Your task to perform on an android device: Add usb-c to usb-a to the cart on amazon.com Image 0: 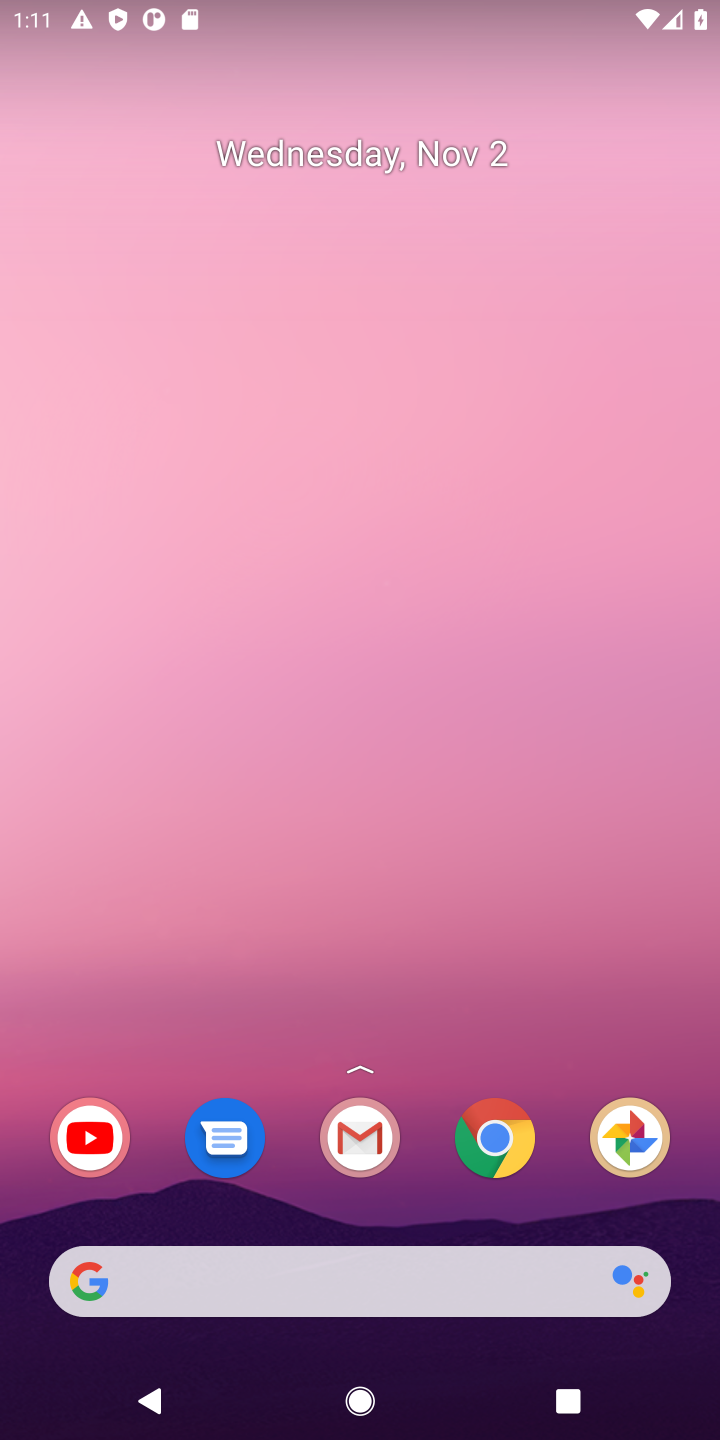
Step 0: press home button
Your task to perform on an android device: Add usb-c to usb-a to the cart on amazon.com Image 1: 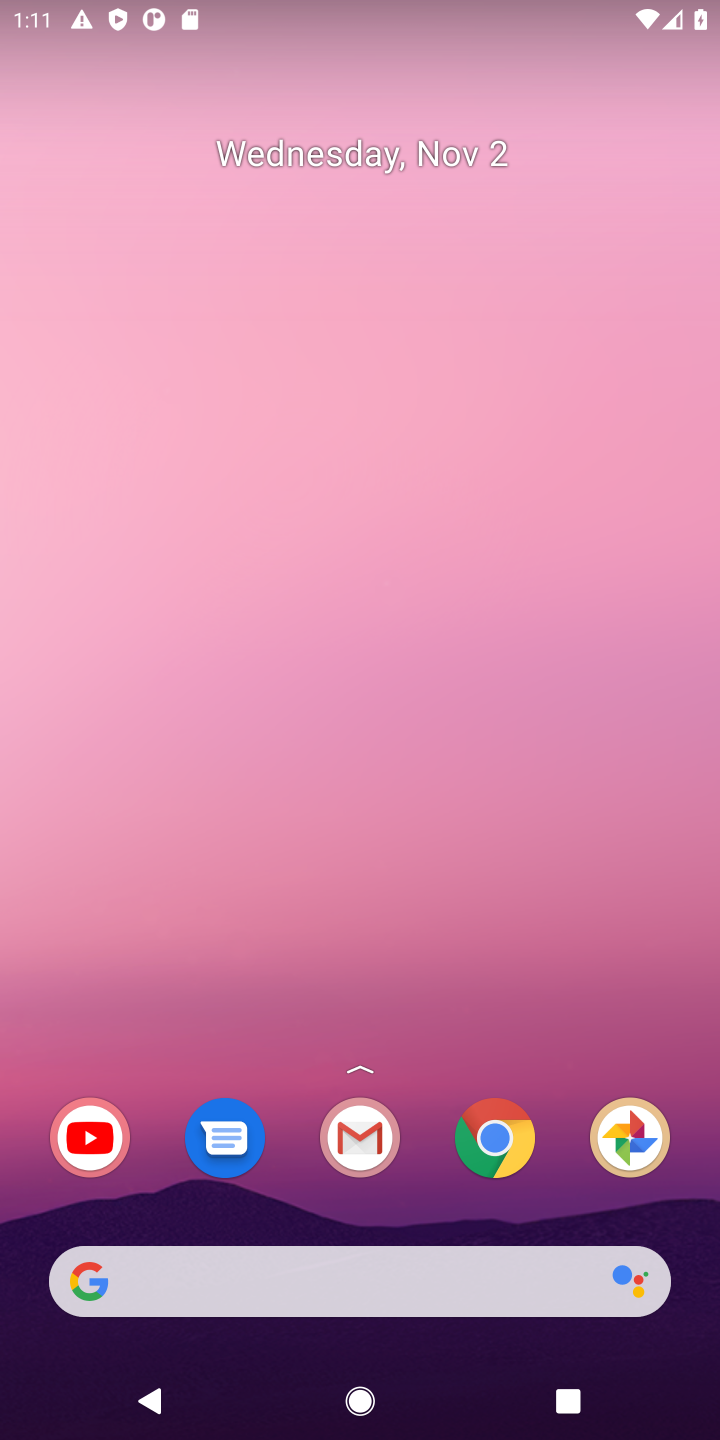
Step 1: click (180, 1261)
Your task to perform on an android device: Add usb-c to usb-a to the cart on amazon.com Image 2: 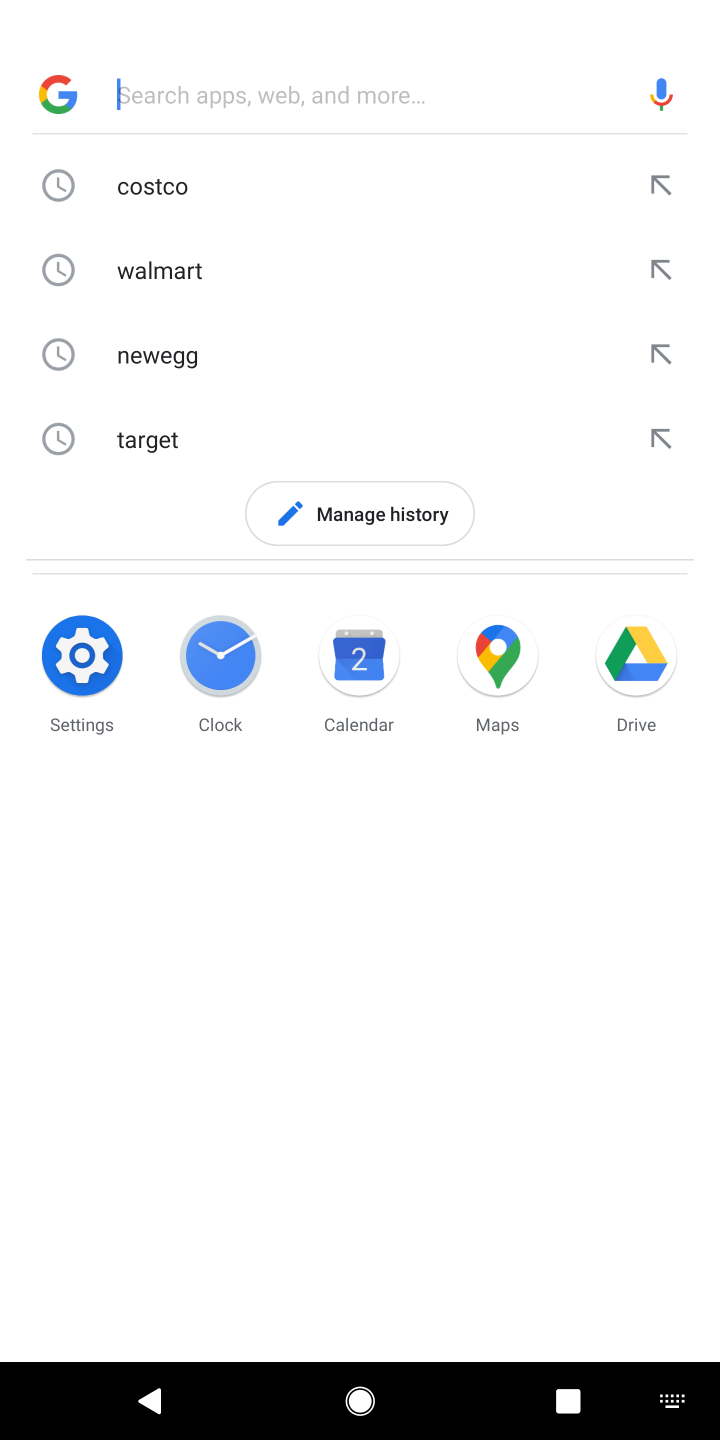
Step 2: press enter
Your task to perform on an android device: Add usb-c to usb-a to the cart on amazon.com Image 3: 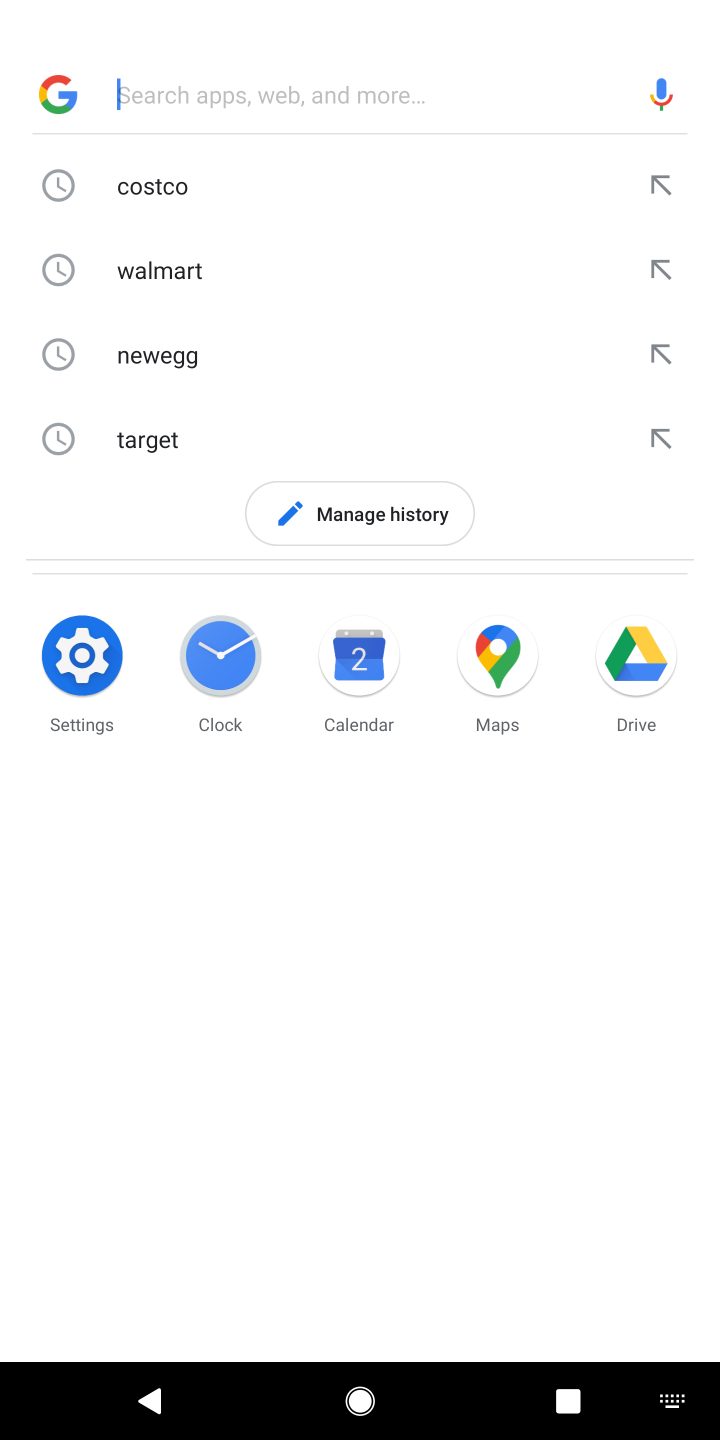
Step 3: type " amazon.com"
Your task to perform on an android device: Add usb-c to usb-a to the cart on amazon.com Image 4: 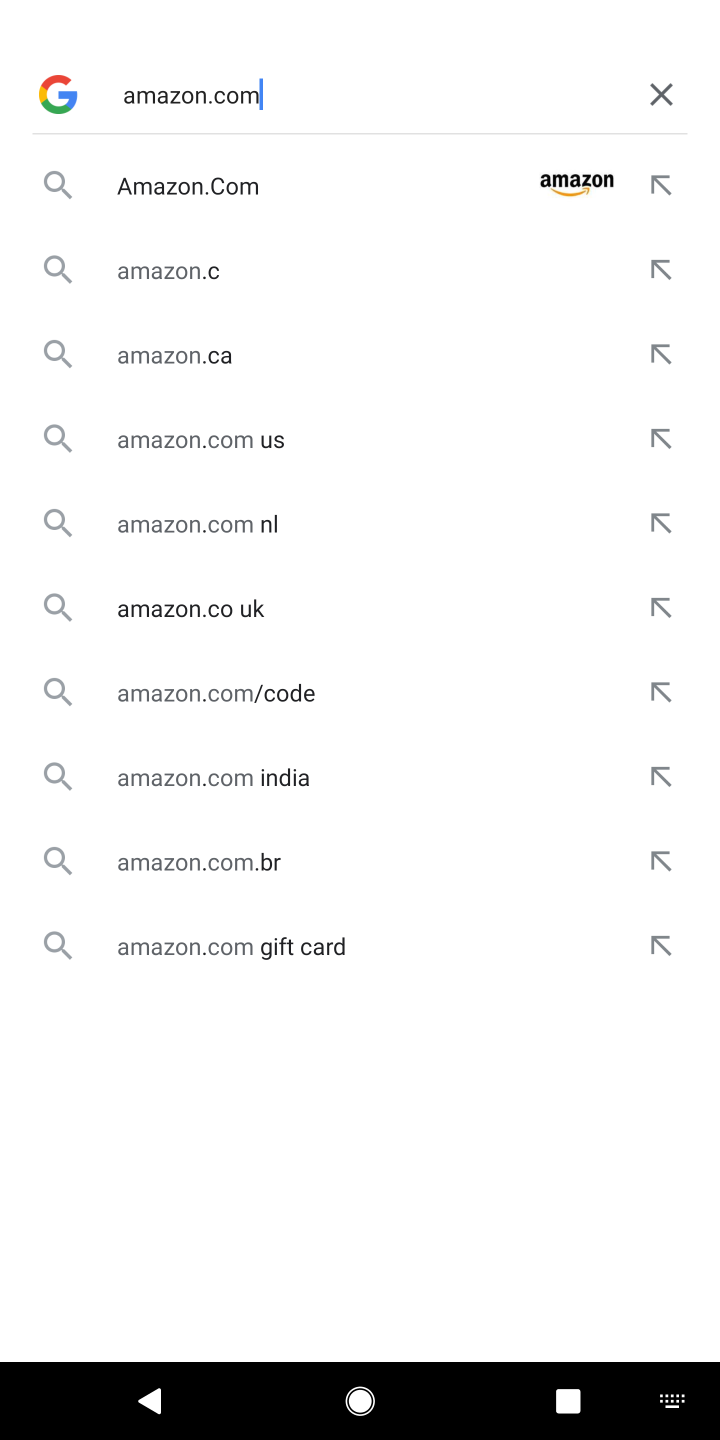
Step 4: press enter
Your task to perform on an android device: Add usb-c to usb-a to the cart on amazon.com Image 5: 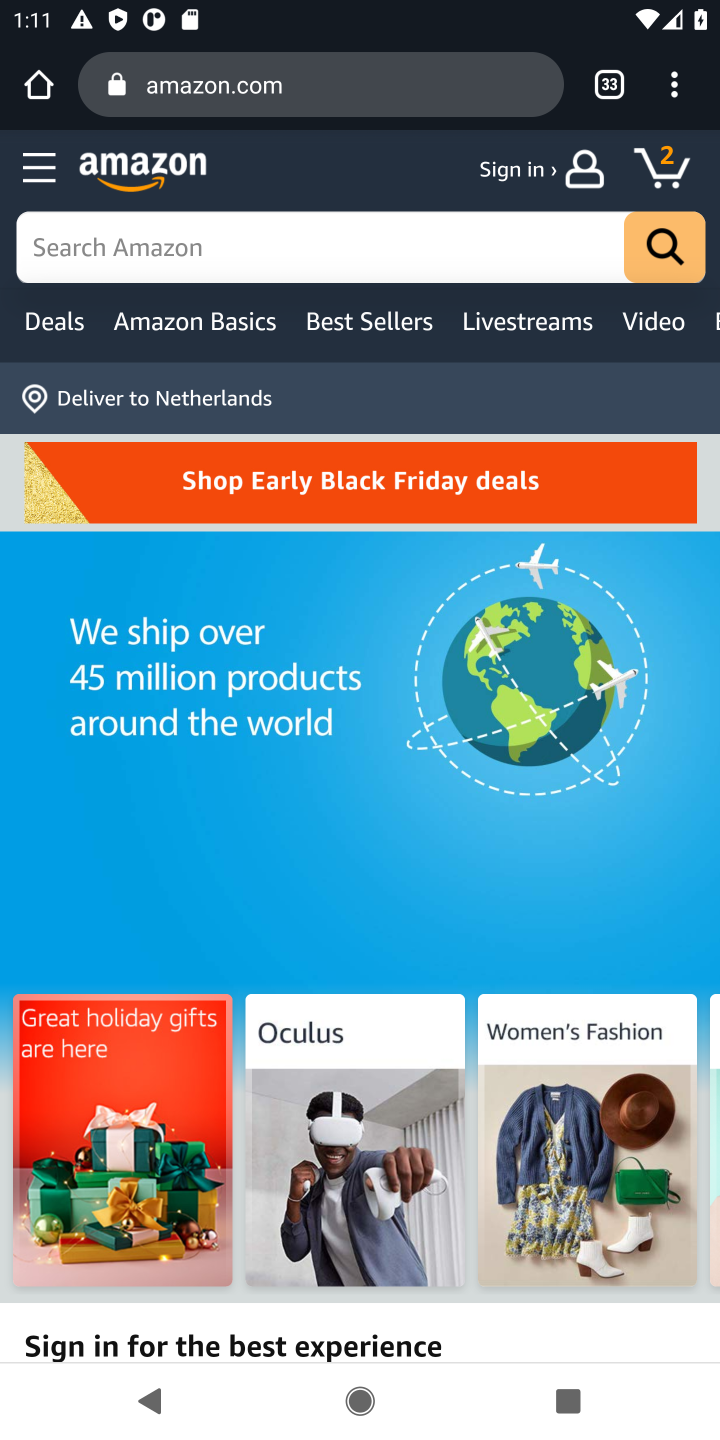
Step 5: click (136, 236)
Your task to perform on an android device: Add usb-c to usb-a to the cart on amazon.com Image 6: 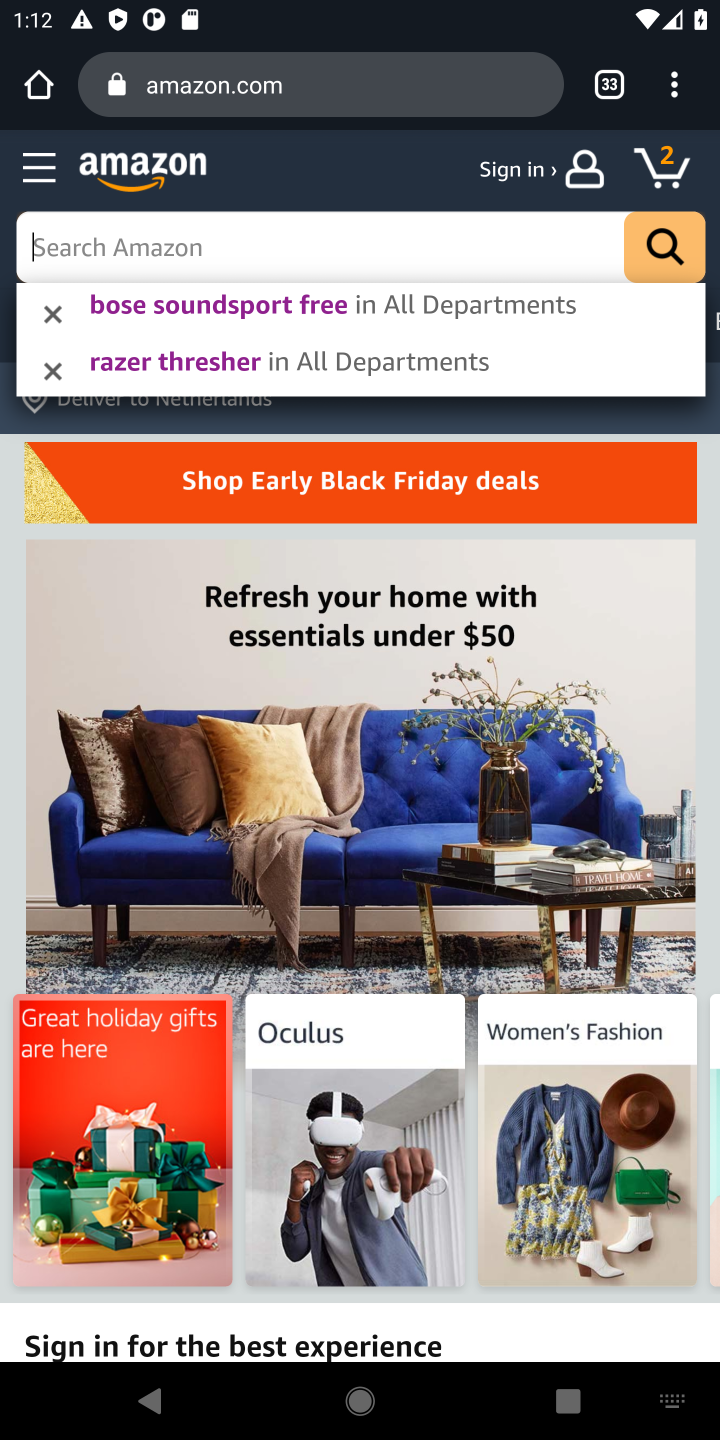
Step 6: press enter
Your task to perform on an android device: Add usb-c to usb-a to the cart on amazon.com Image 7: 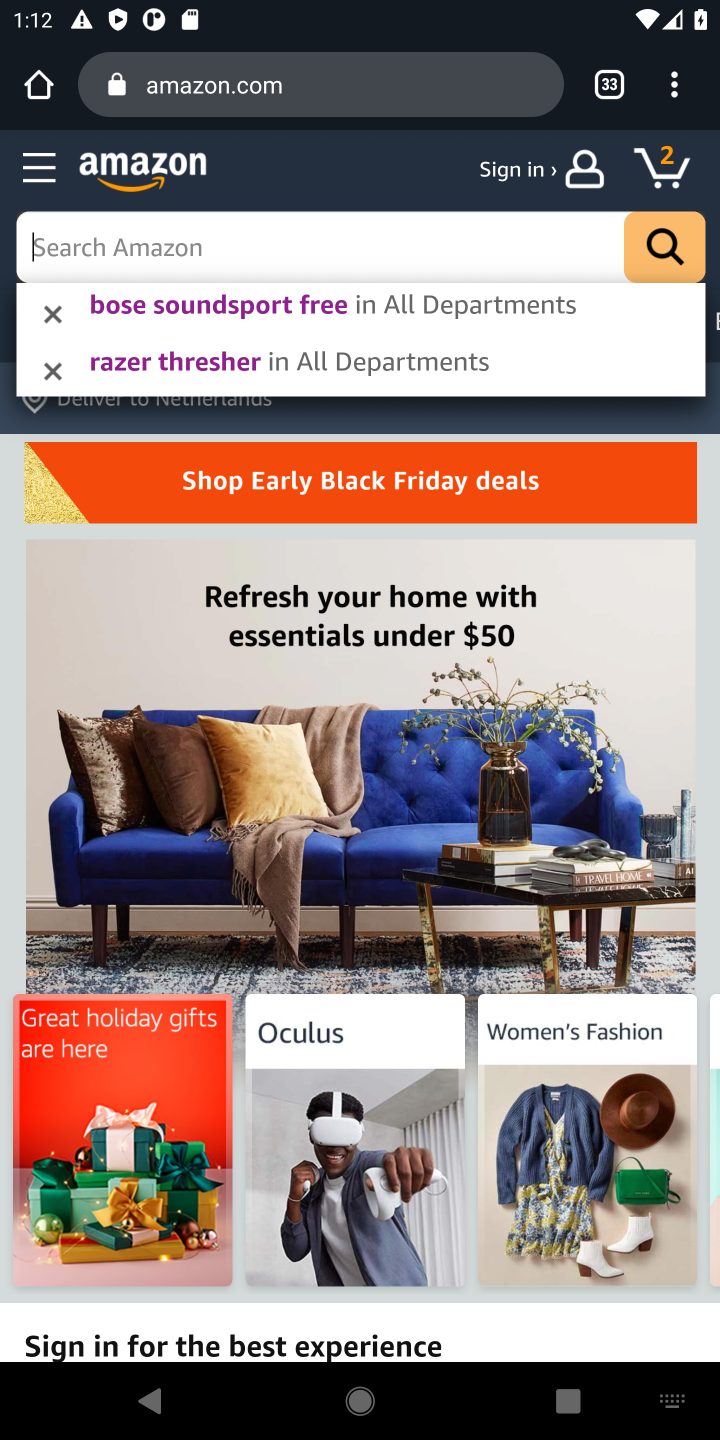
Step 7: type "usb-c to usb-a"
Your task to perform on an android device: Add usb-c to usb-a to the cart on amazon.com Image 8: 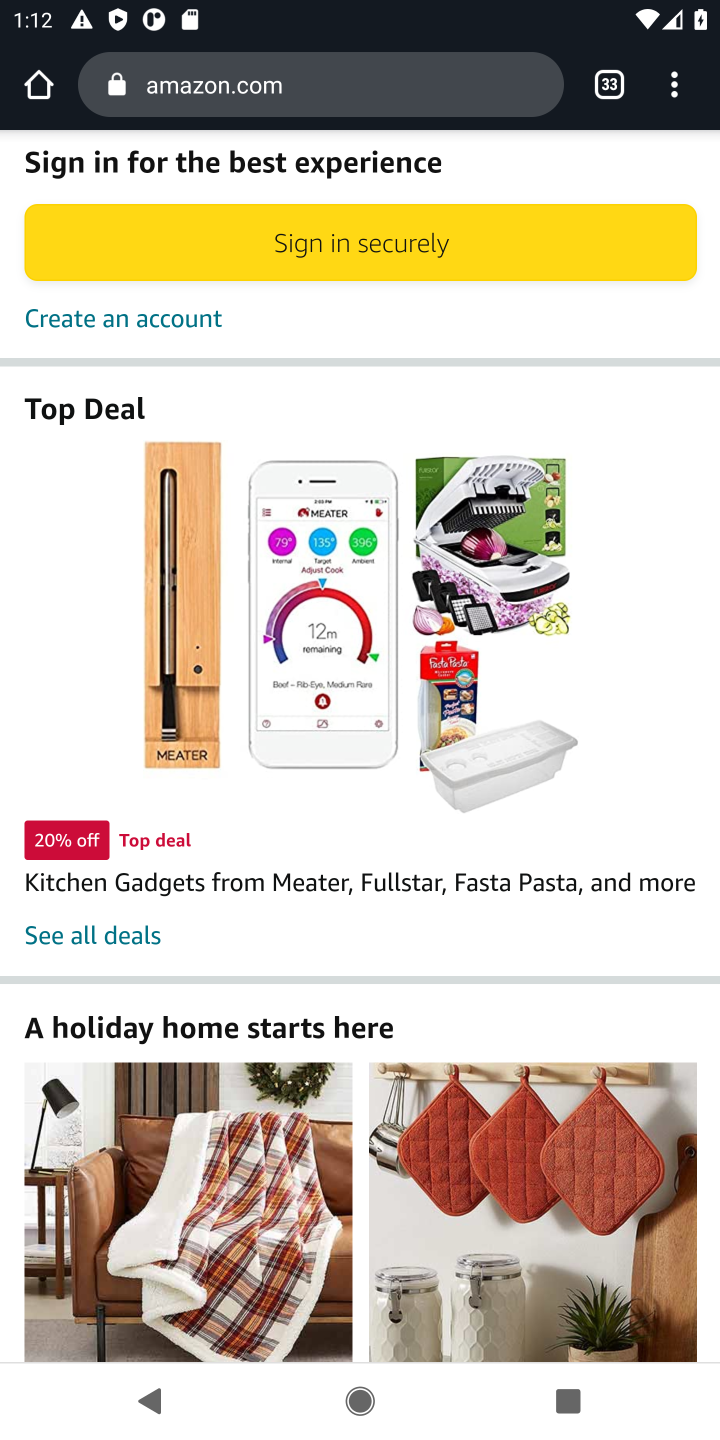
Step 8: drag from (515, 445) to (521, 964)
Your task to perform on an android device: Add usb-c to usb-a to the cart on amazon.com Image 9: 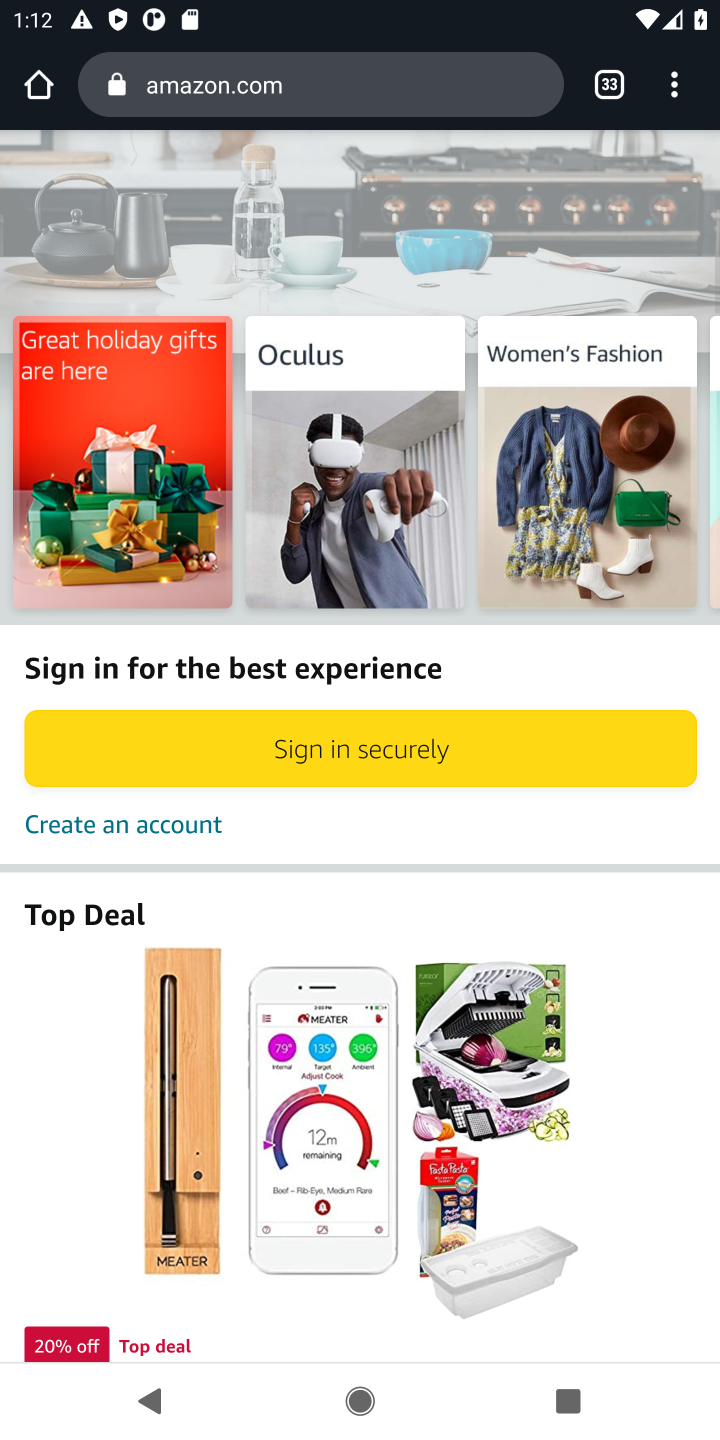
Step 9: drag from (528, 481) to (517, 1050)
Your task to perform on an android device: Add usb-c to usb-a to the cart on amazon.com Image 10: 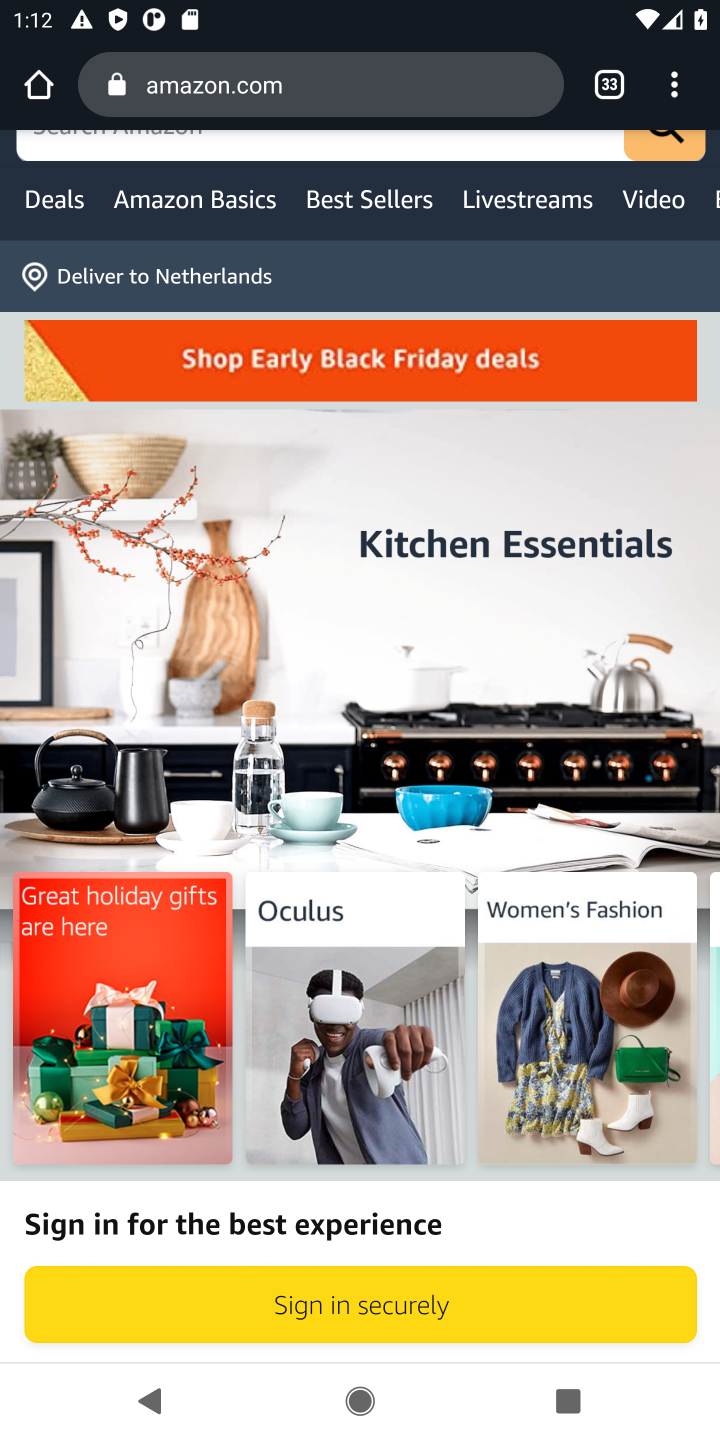
Step 10: drag from (511, 440) to (493, 998)
Your task to perform on an android device: Add usb-c to usb-a to the cart on amazon.com Image 11: 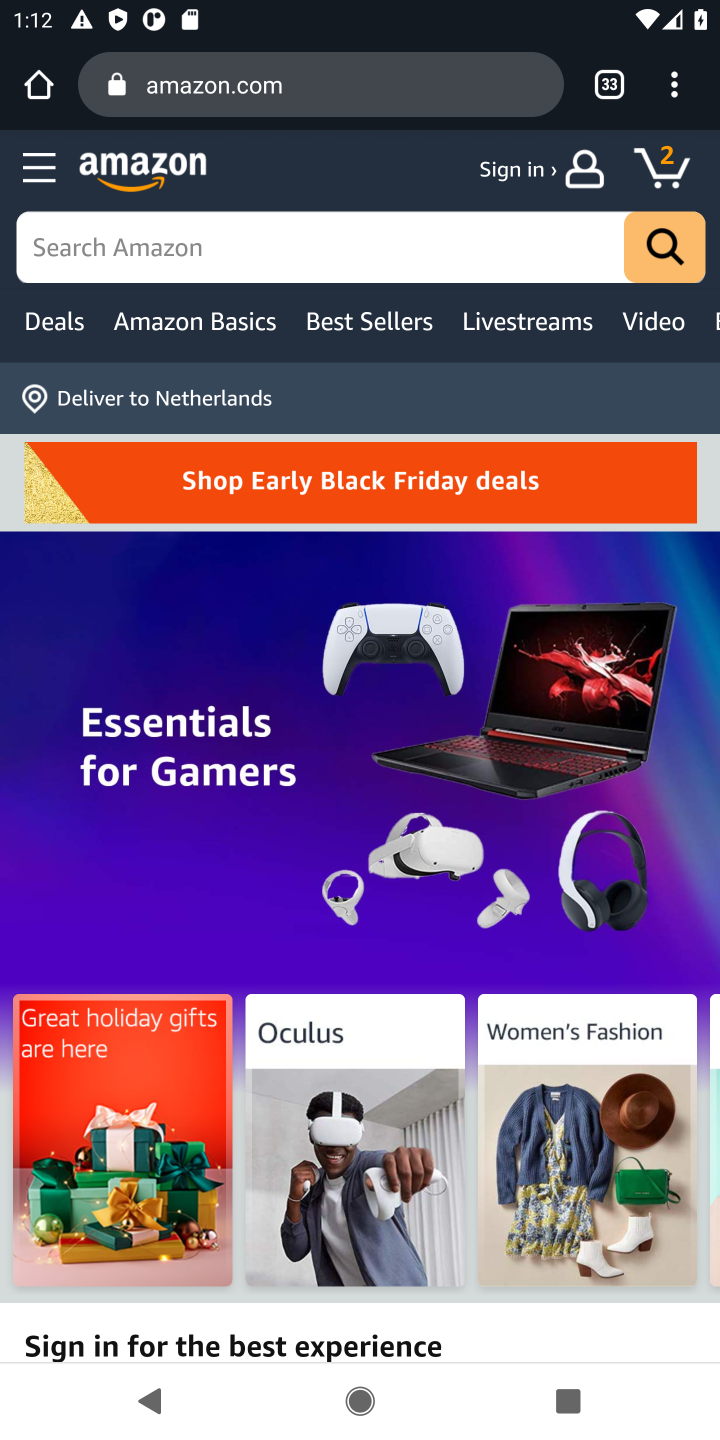
Step 11: click (113, 247)
Your task to perform on an android device: Add usb-c to usb-a to the cart on amazon.com Image 12: 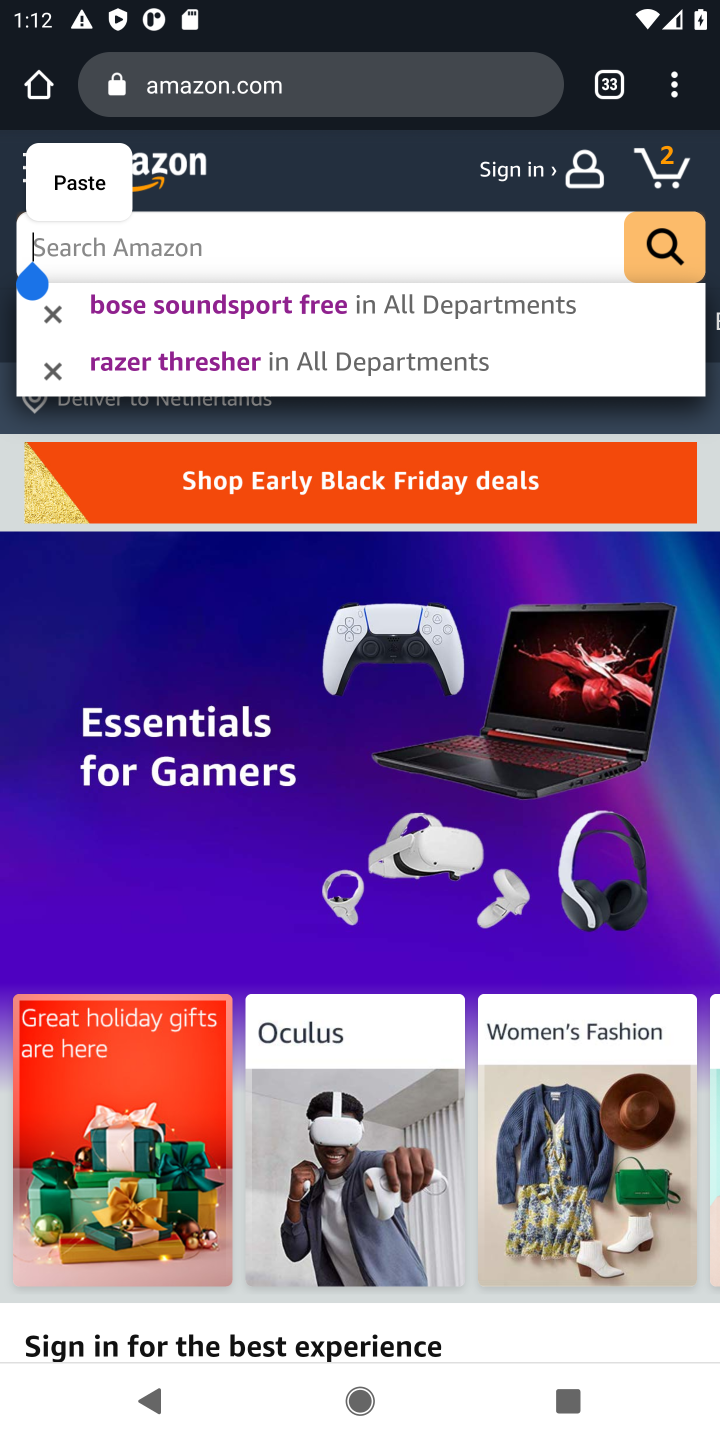
Step 12: type "usb-c to usb-a"
Your task to perform on an android device: Add usb-c to usb-a to the cart on amazon.com Image 13: 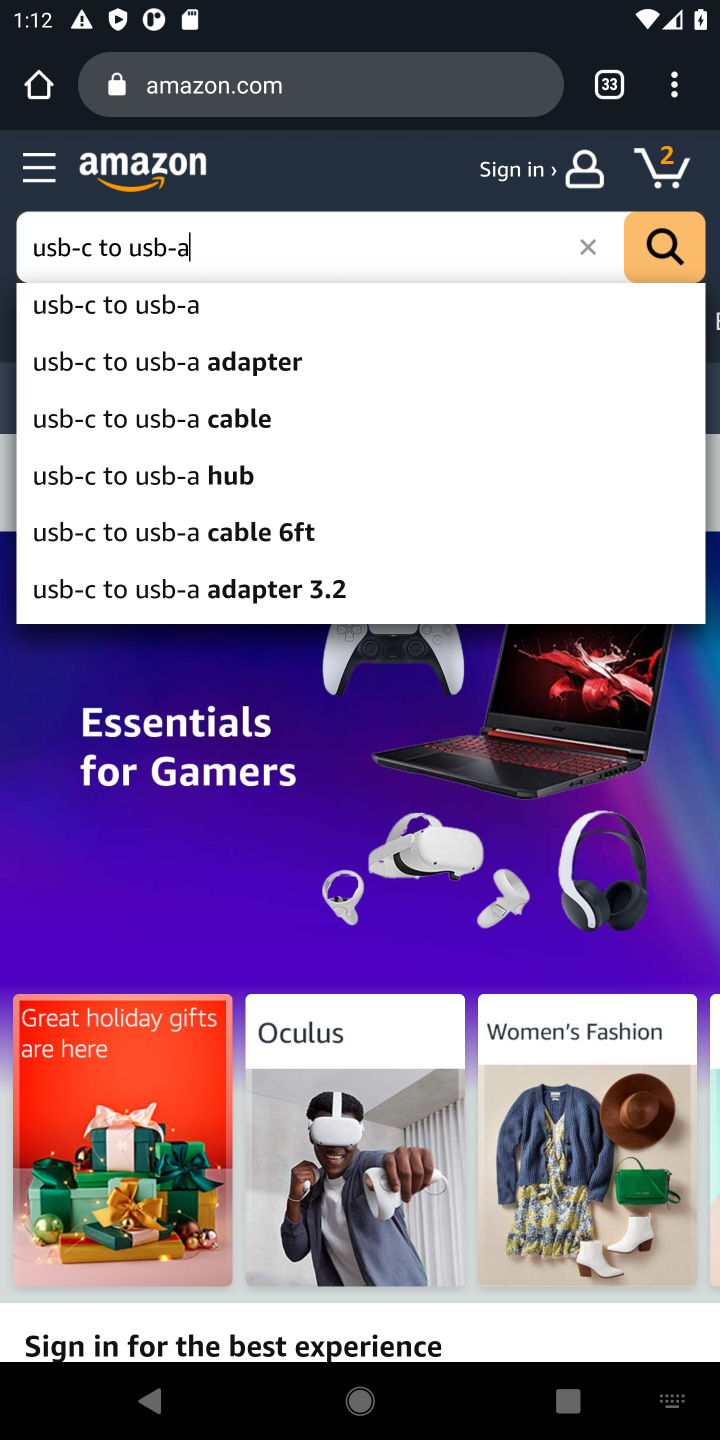
Step 13: click (667, 237)
Your task to perform on an android device: Add usb-c to usb-a to the cart on amazon.com Image 14: 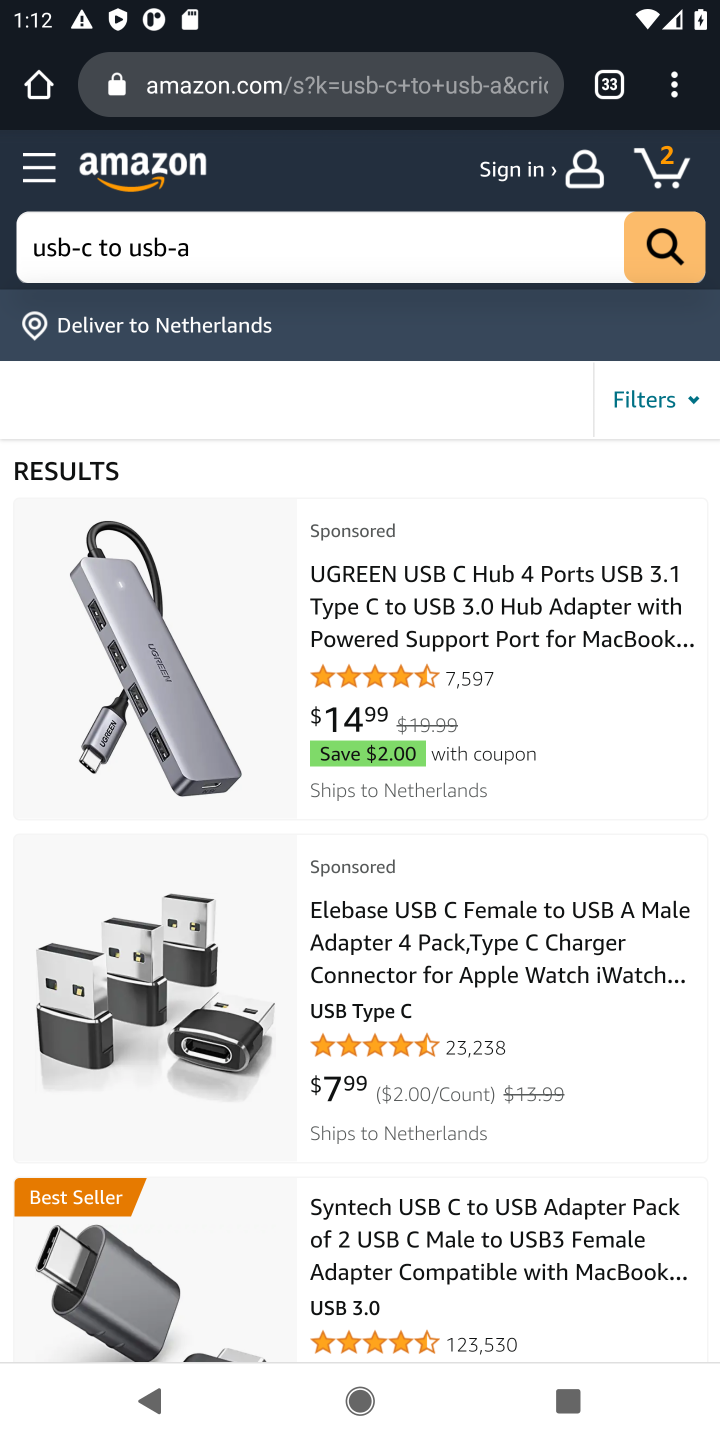
Step 14: drag from (407, 1175) to (414, 982)
Your task to perform on an android device: Add usb-c to usb-a to the cart on amazon.com Image 15: 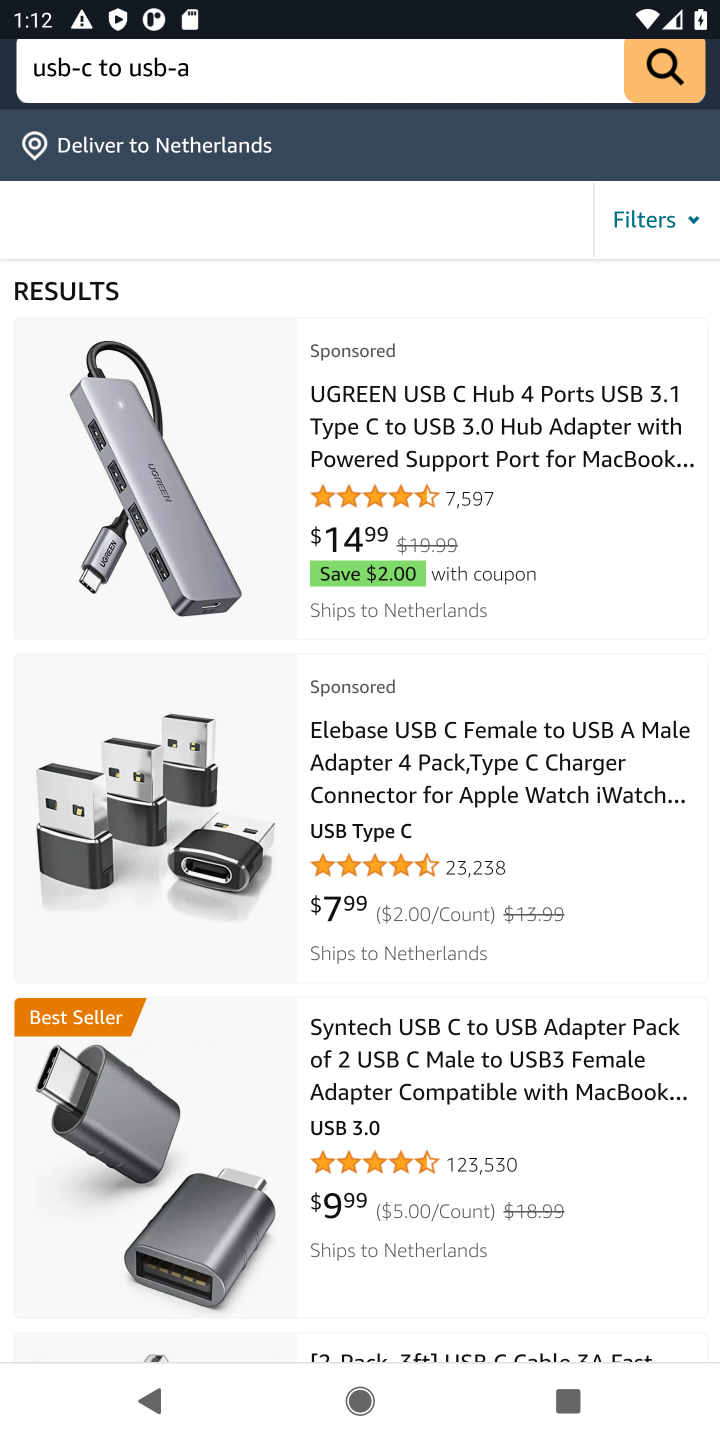
Step 15: drag from (401, 1167) to (431, 962)
Your task to perform on an android device: Add usb-c to usb-a to the cart on amazon.com Image 16: 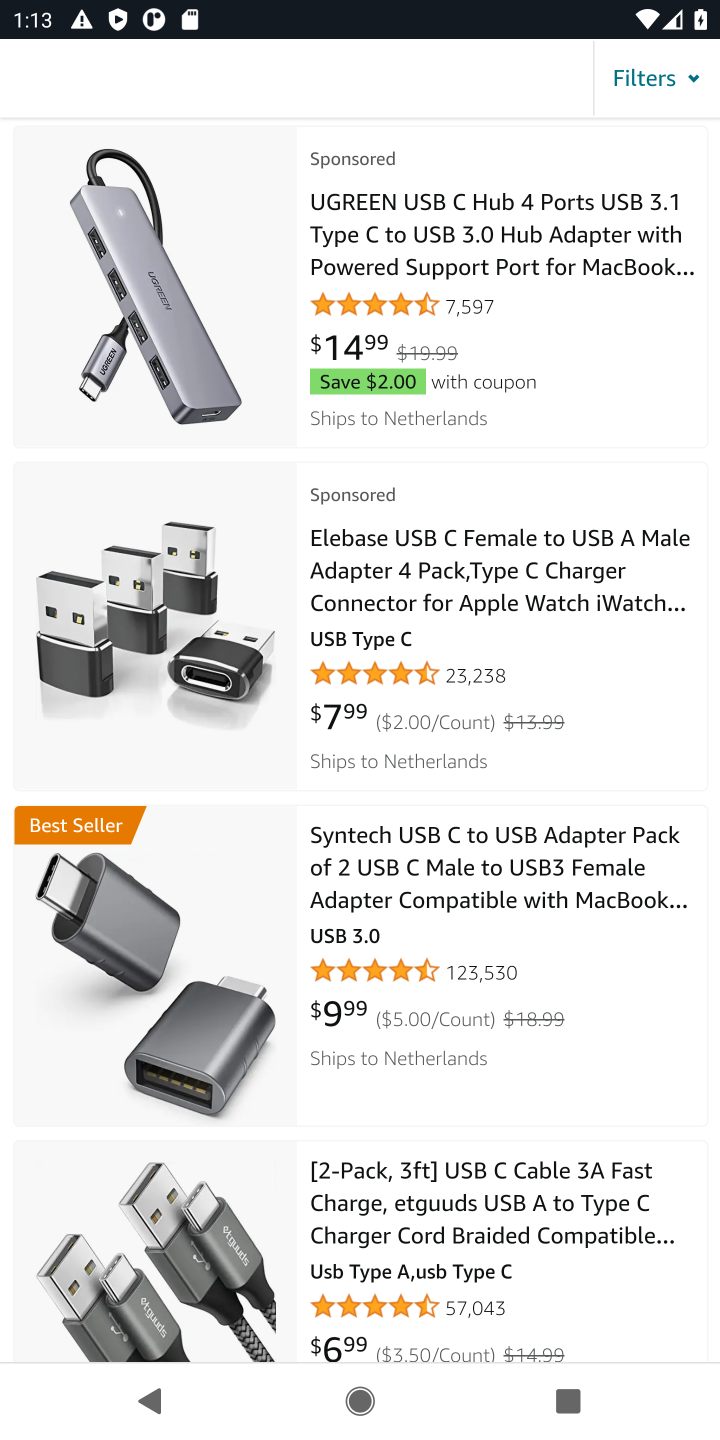
Step 16: click (515, 560)
Your task to perform on an android device: Add usb-c to usb-a to the cart on amazon.com Image 17: 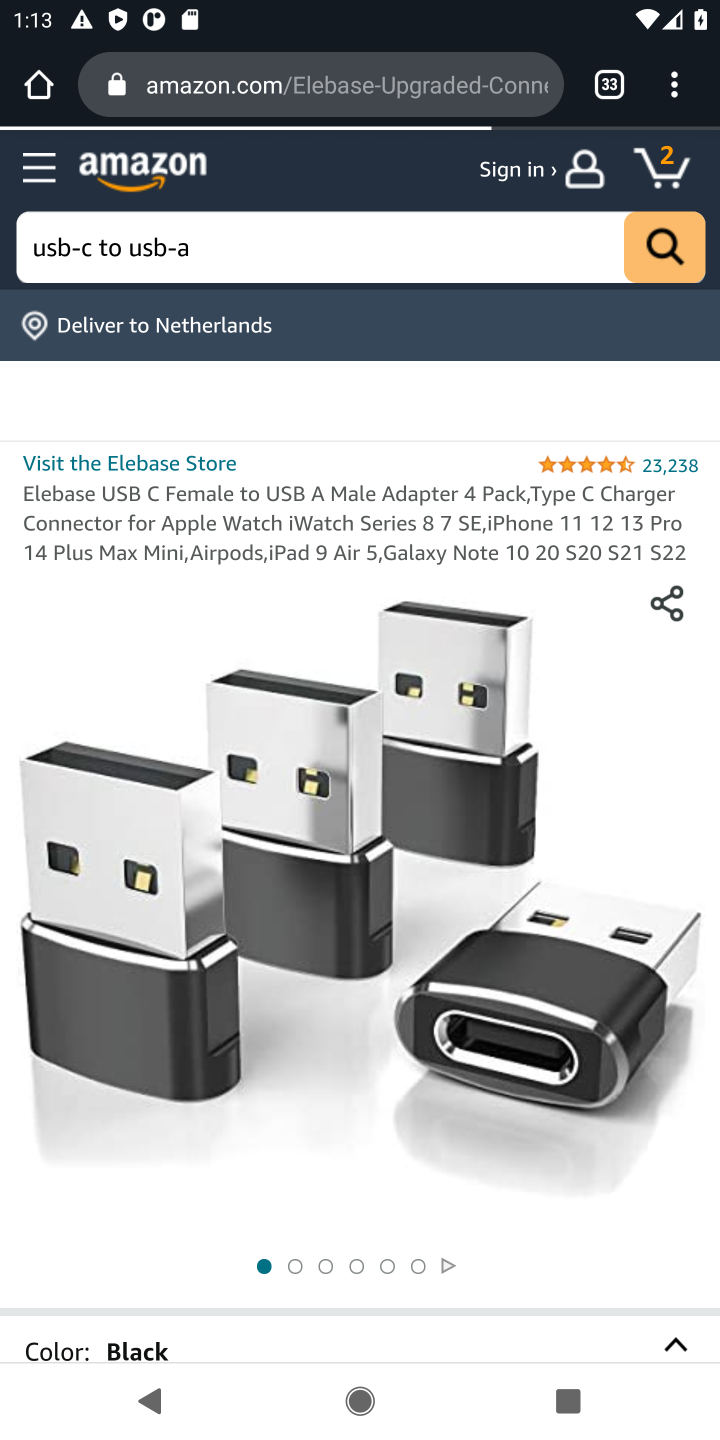
Step 17: drag from (334, 1051) to (337, 690)
Your task to perform on an android device: Add usb-c to usb-a to the cart on amazon.com Image 18: 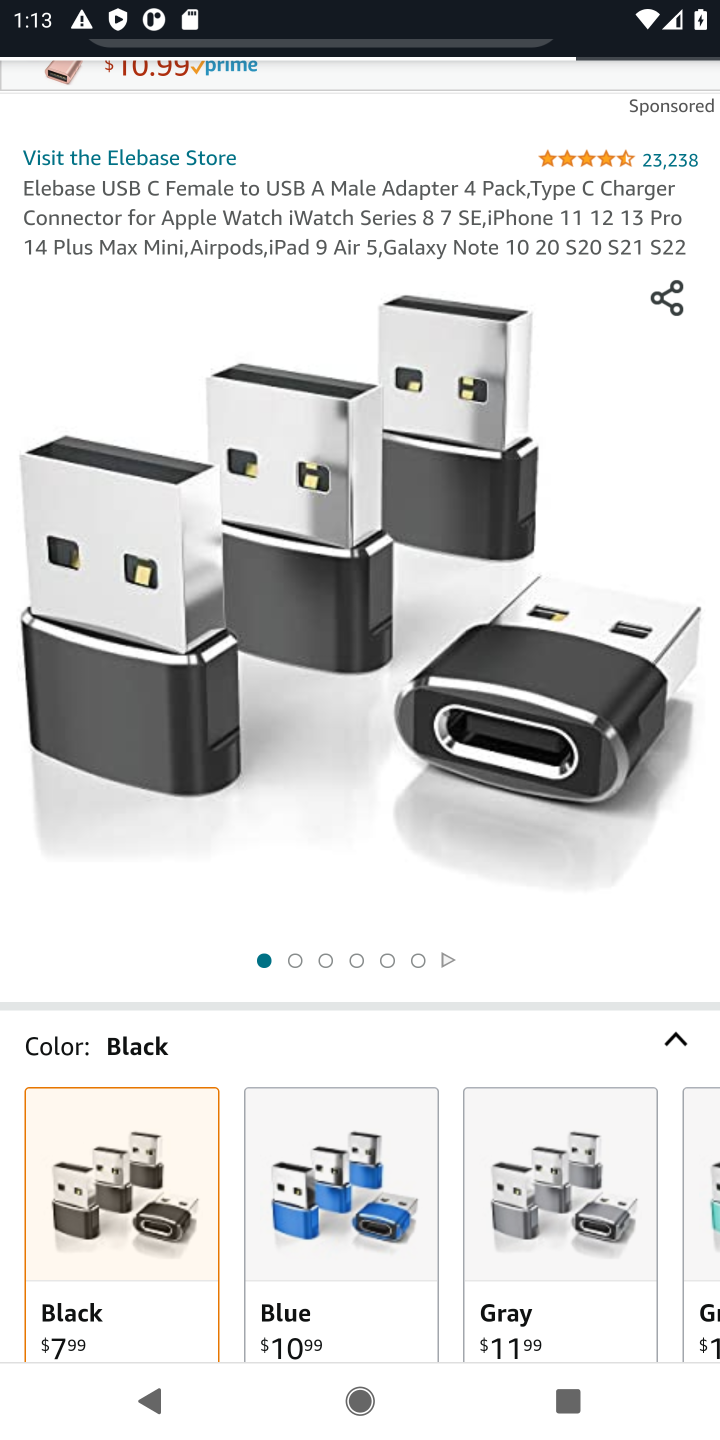
Step 18: drag from (257, 1187) to (329, 517)
Your task to perform on an android device: Add usb-c to usb-a to the cart on amazon.com Image 19: 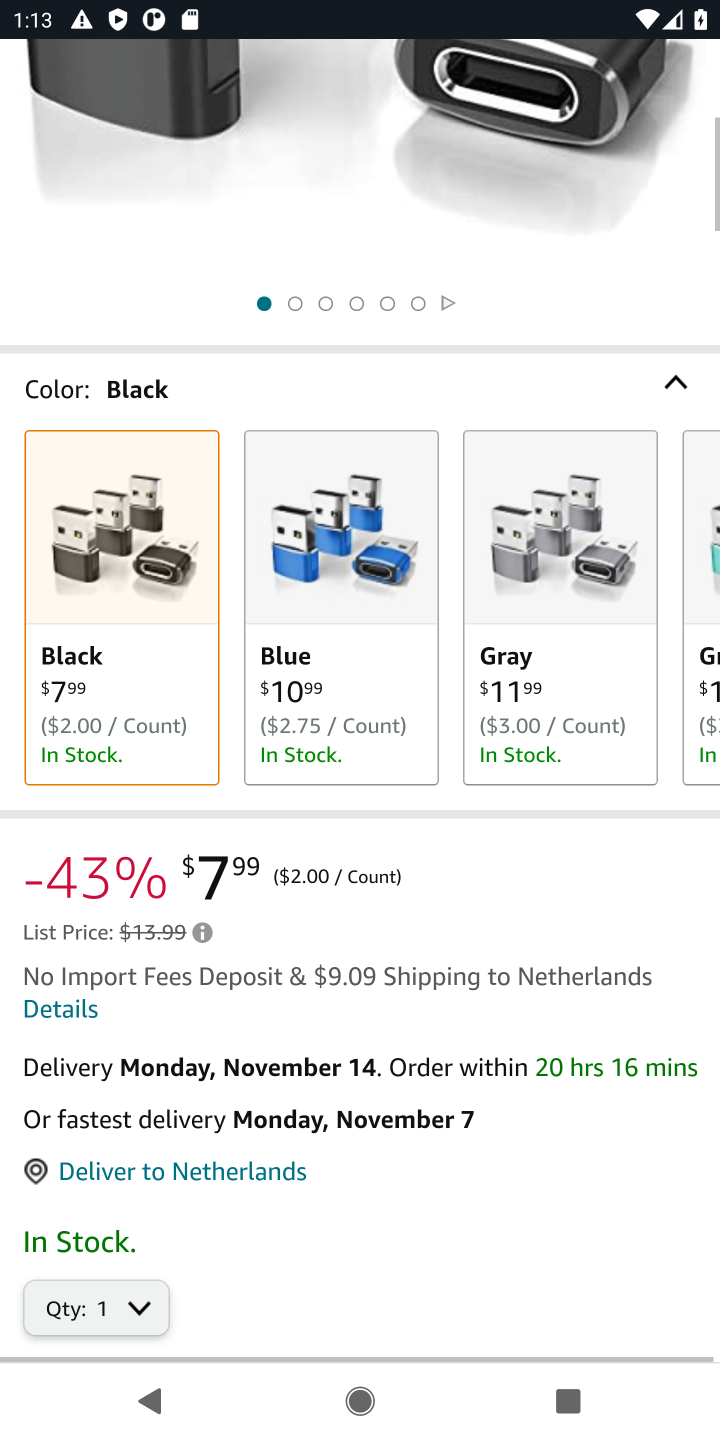
Step 19: drag from (350, 1227) to (404, 661)
Your task to perform on an android device: Add usb-c to usb-a to the cart on amazon.com Image 20: 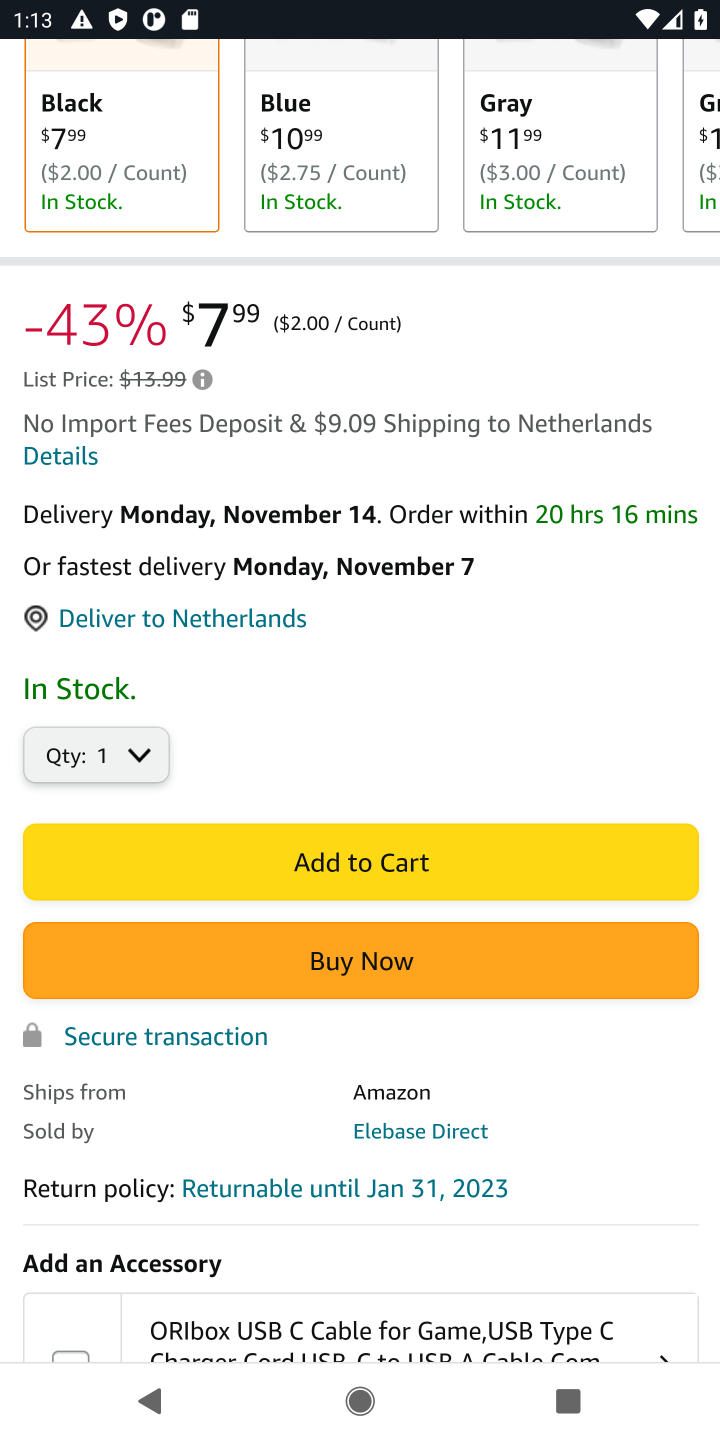
Step 20: click (357, 858)
Your task to perform on an android device: Add usb-c to usb-a to the cart on amazon.com Image 21: 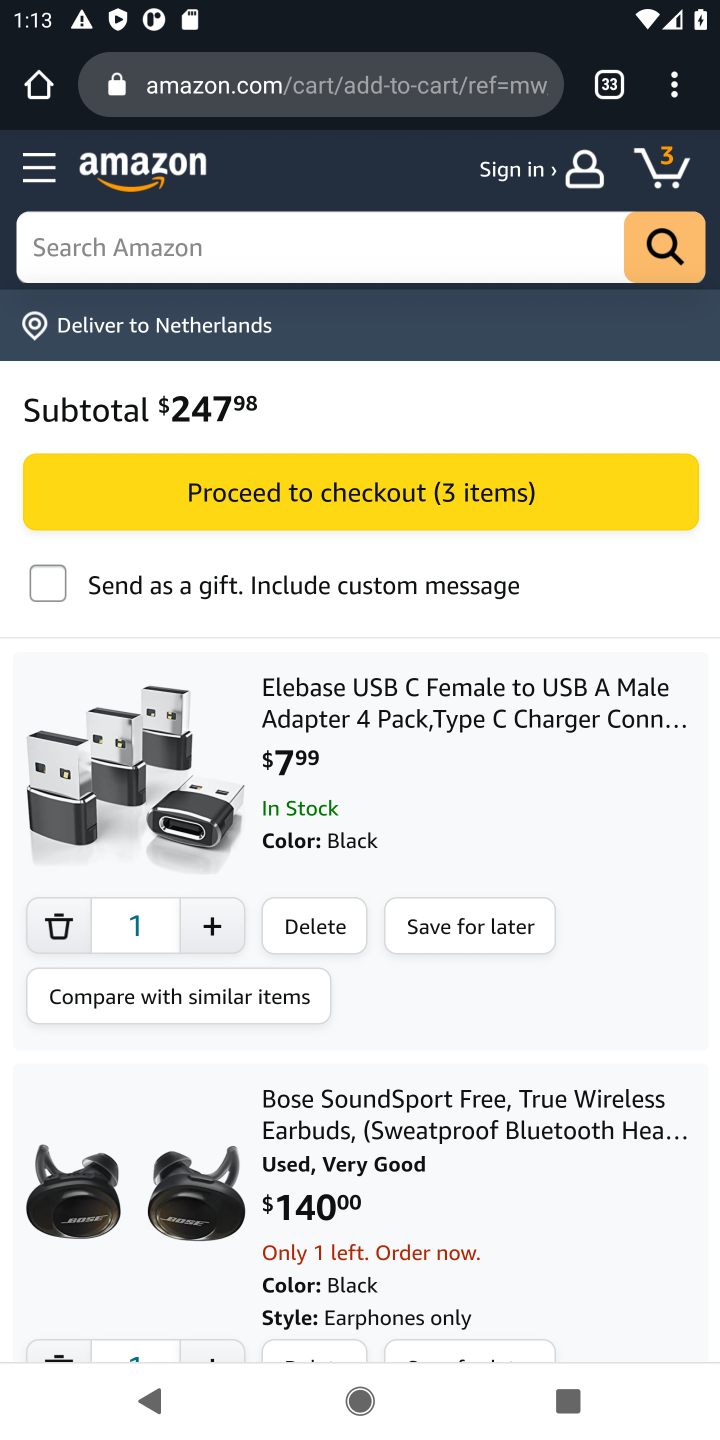
Step 21: task complete